Your task to perform on an android device: choose inbox layout in the gmail app Image 0: 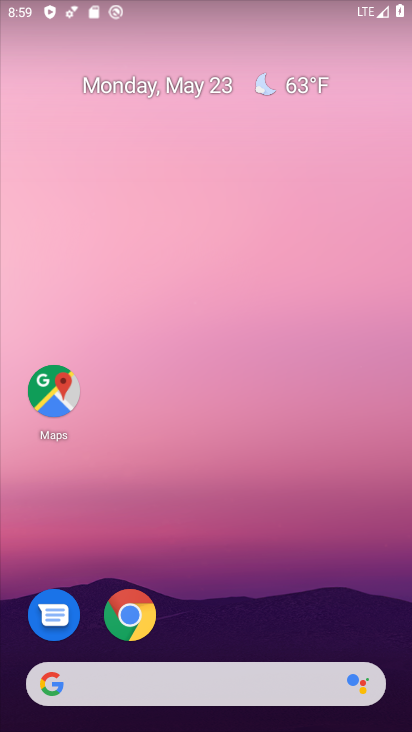
Step 0: drag from (261, 611) to (303, 125)
Your task to perform on an android device: choose inbox layout in the gmail app Image 1: 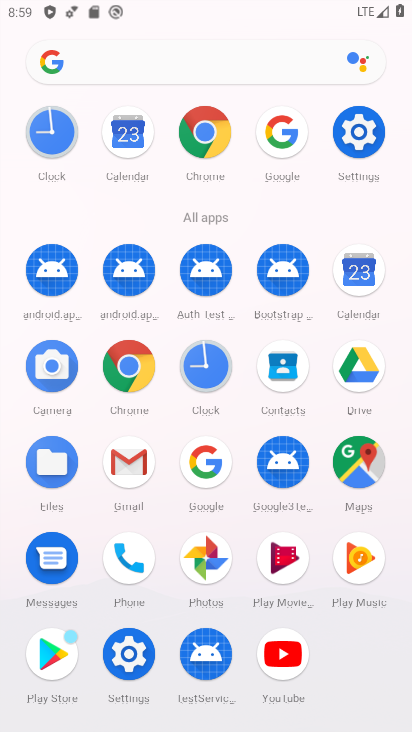
Step 1: click (133, 461)
Your task to perform on an android device: choose inbox layout in the gmail app Image 2: 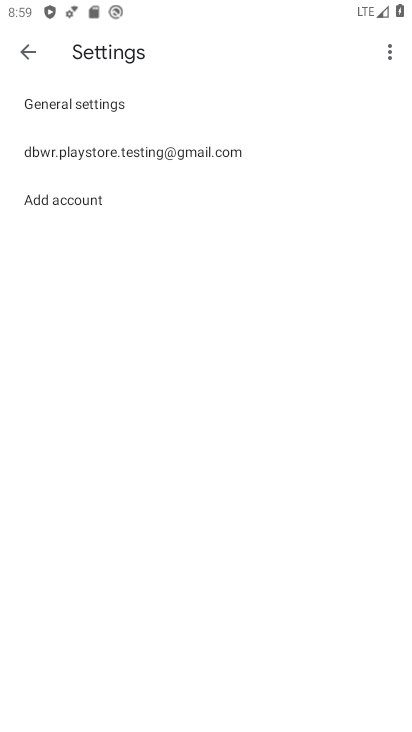
Step 2: click (116, 151)
Your task to perform on an android device: choose inbox layout in the gmail app Image 3: 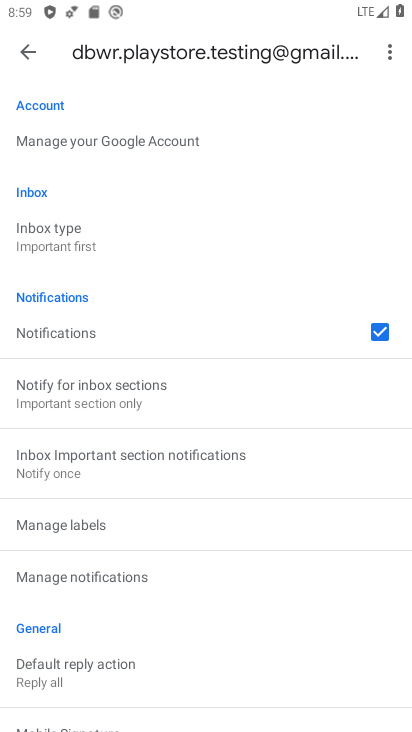
Step 3: click (101, 240)
Your task to perform on an android device: choose inbox layout in the gmail app Image 4: 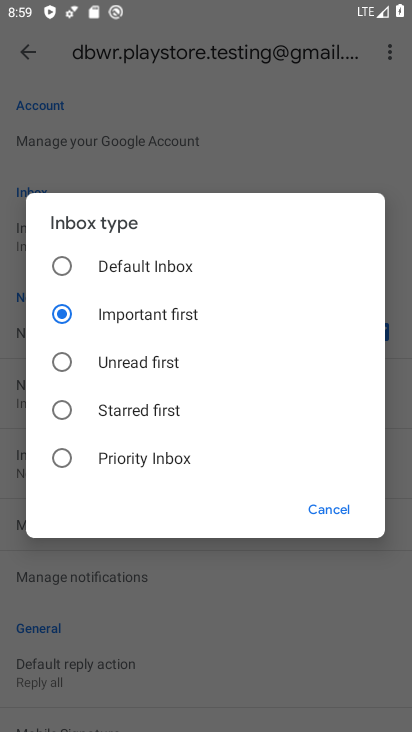
Step 4: click (62, 267)
Your task to perform on an android device: choose inbox layout in the gmail app Image 5: 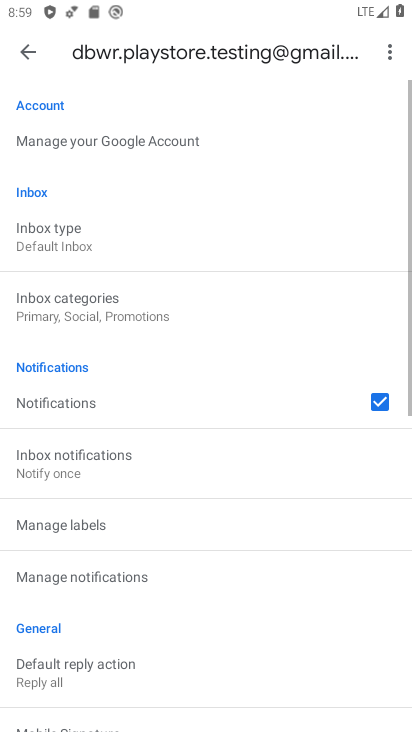
Step 5: task complete